Your task to perform on an android device: Open Google Chrome and open the bookmarks view Image 0: 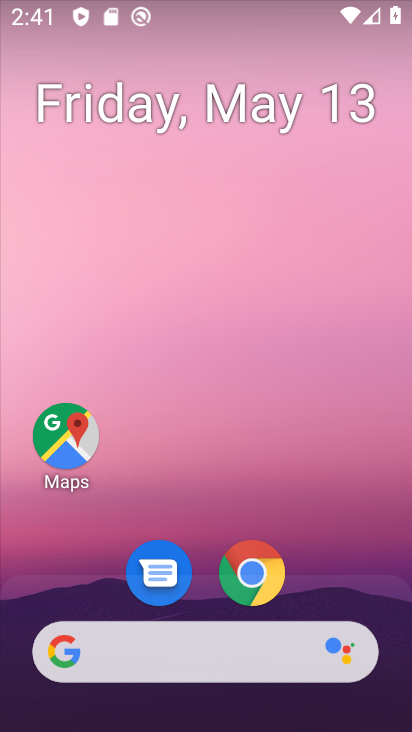
Step 0: click (250, 570)
Your task to perform on an android device: Open Google Chrome and open the bookmarks view Image 1: 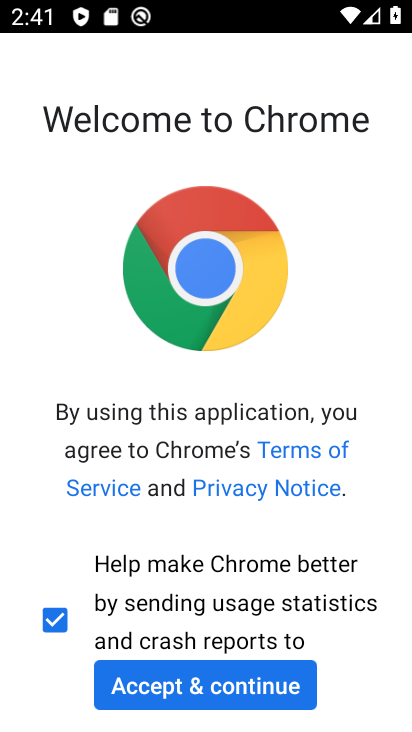
Step 1: click (269, 669)
Your task to perform on an android device: Open Google Chrome and open the bookmarks view Image 2: 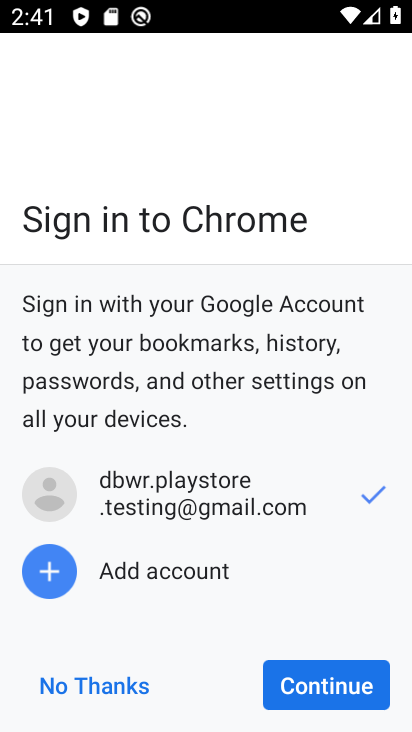
Step 2: click (343, 689)
Your task to perform on an android device: Open Google Chrome and open the bookmarks view Image 3: 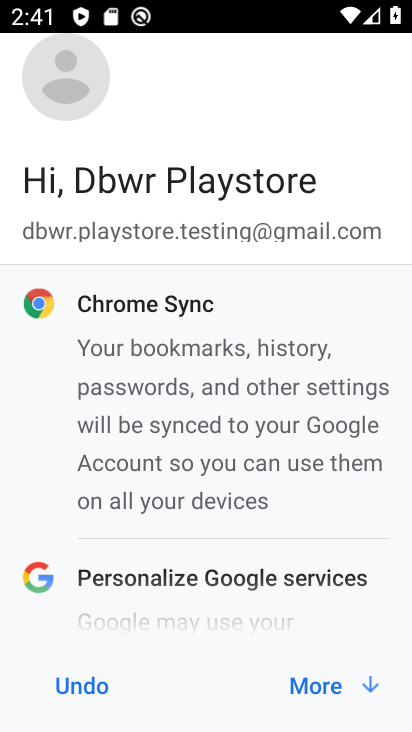
Step 3: click (343, 689)
Your task to perform on an android device: Open Google Chrome and open the bookmarks view Image 4: 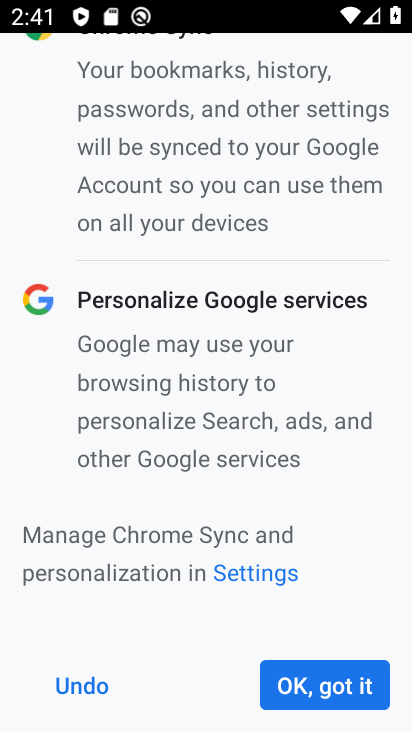
Step 4: click (343, 689)
Your task to perform on an android device: Open Google Chrome and open the bookmarks view Image 5: 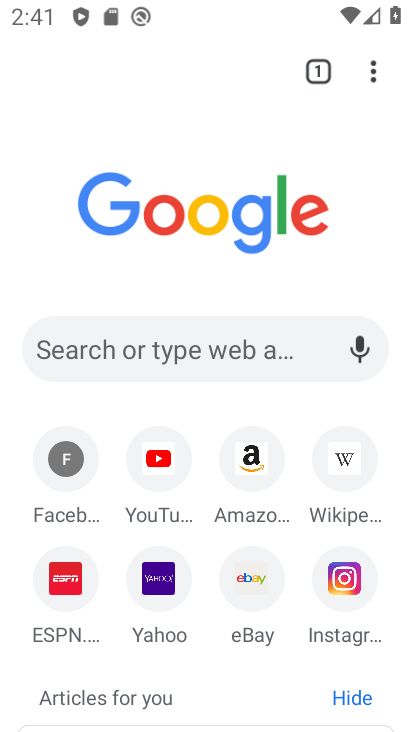
Step 5: task complete